Your task to perform on an android device: Go to wifi settings Image 0: 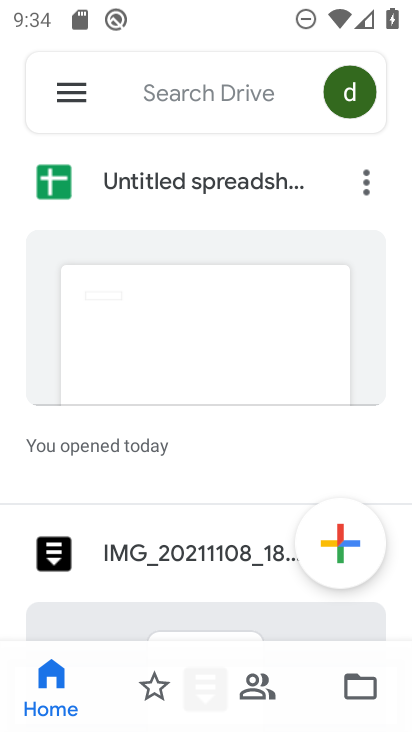
Step 0: press home button
Your task to perform on an android device: Go to wifi settings Image 1: 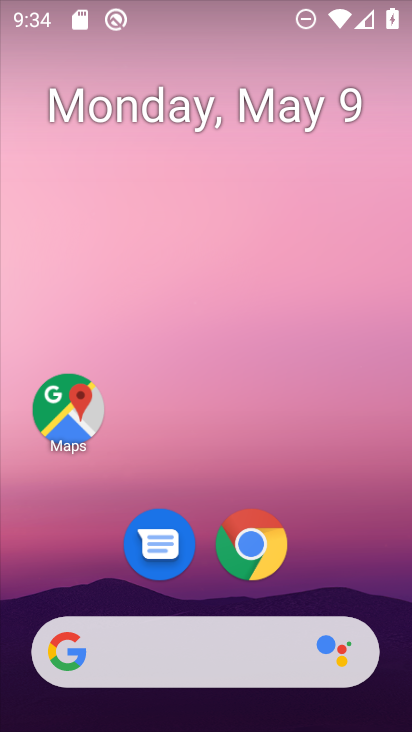
Step 1: drag from (317, 562) to (211, 77)
Your task to perform on an android device: Go to wifi settings Image 2: 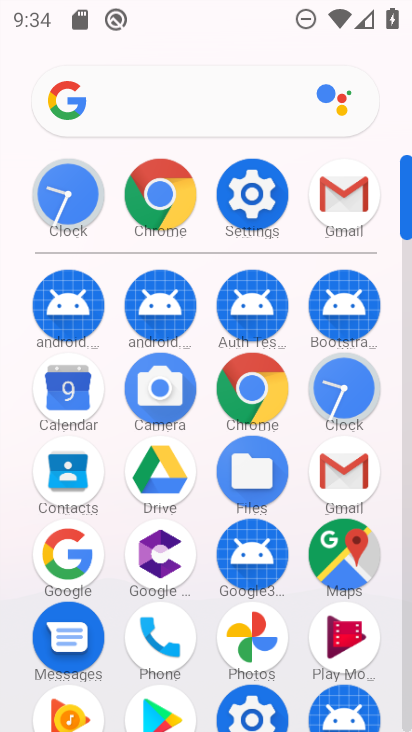
Step 2: click (250, 199)
Your task to perform on an android device: Go to wifi settings Image 3: 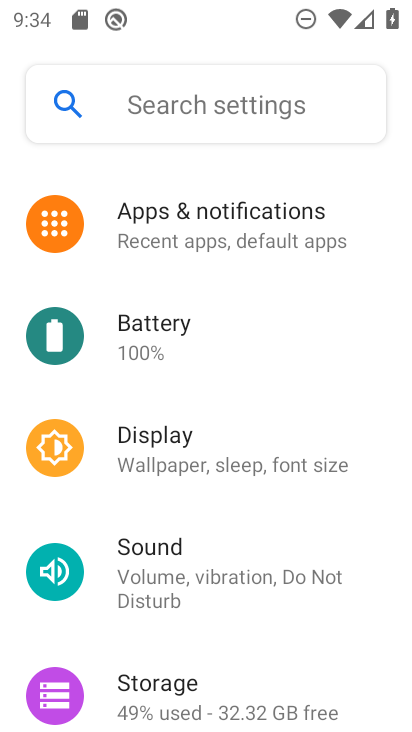
Step 3: drag from (227, 293) to (199, 715)
Your task to perform on an android device: Go to wifi settings Image 4: 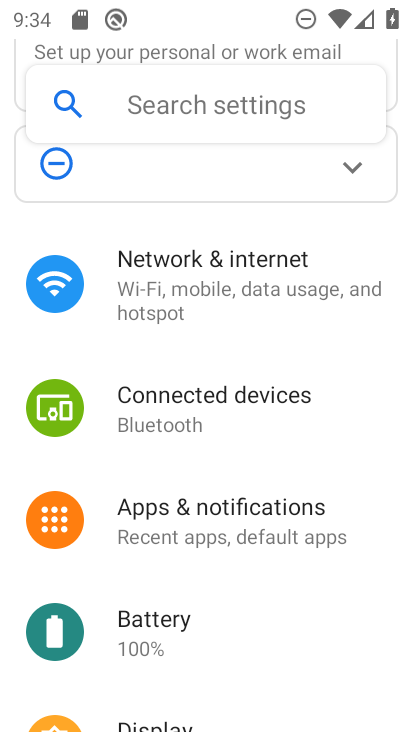
Step 4: click (158, 267)
Your task to perform on an android device: Go to wifi settings Image 5: 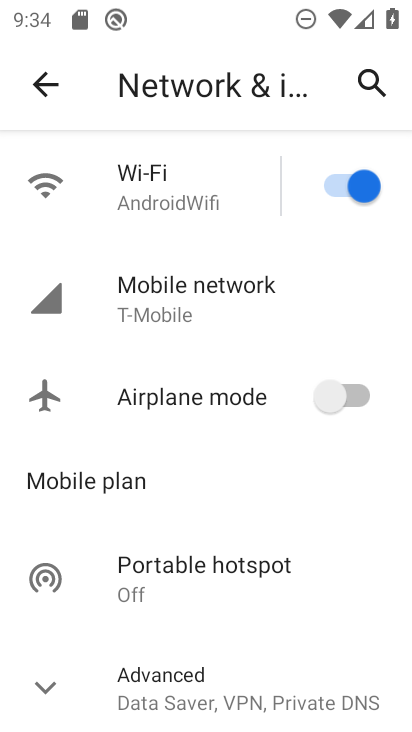
Step 5: click (152, 172)
Your task to perform on an android device: Go to wifi settings Image 6: 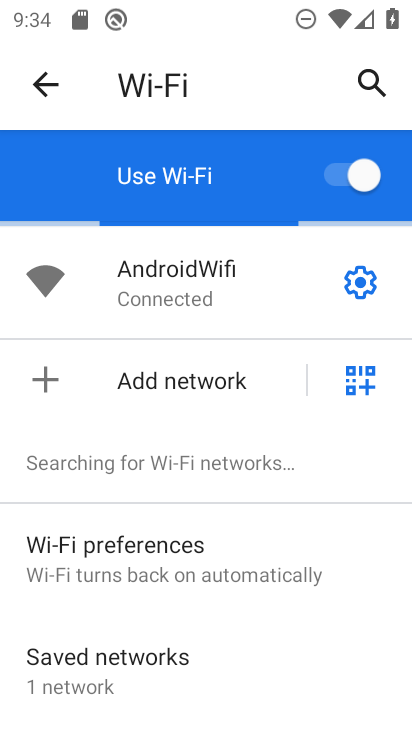
Step 6: task complete